Your task to perform on an android device: Show me productivity apps on the Play Store Image 0: 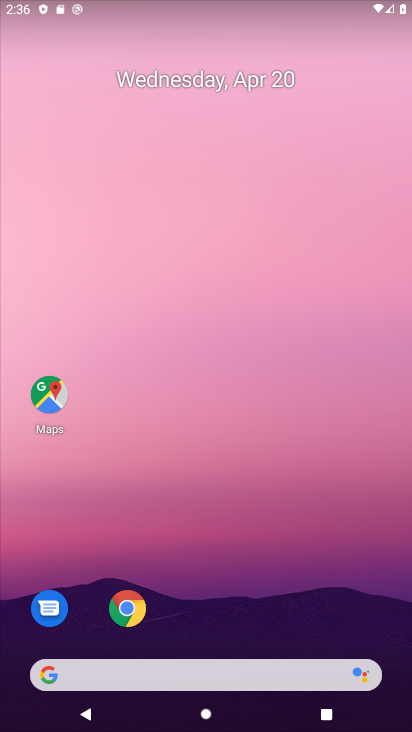
Step 0: drag from (15, 642) to (207, 287)
Your task to perform on an android device: Show me productivity apps on the Play Store Image 1: 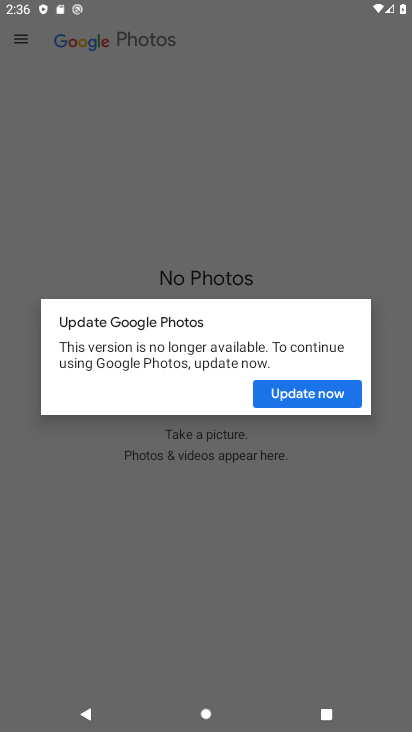
Step 1: press home button
Your task to perform on an android device: Show me productivity apps on the Play Store Image 2: 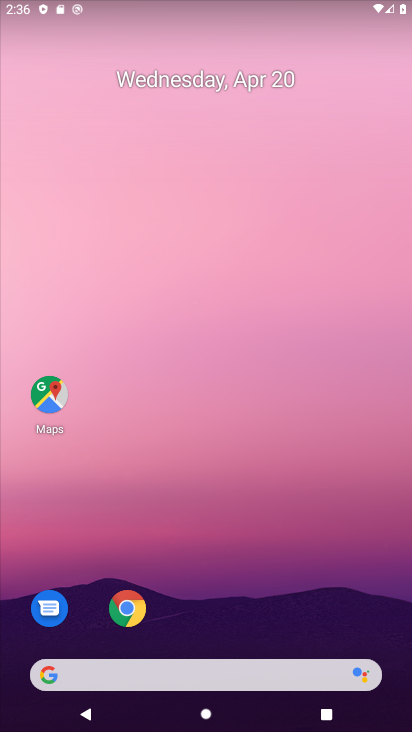
Step 2: drag from (165, 647) to (221, 120)
Your task to perform on an android device: Show me productivity apps on the Play Store Image 3: 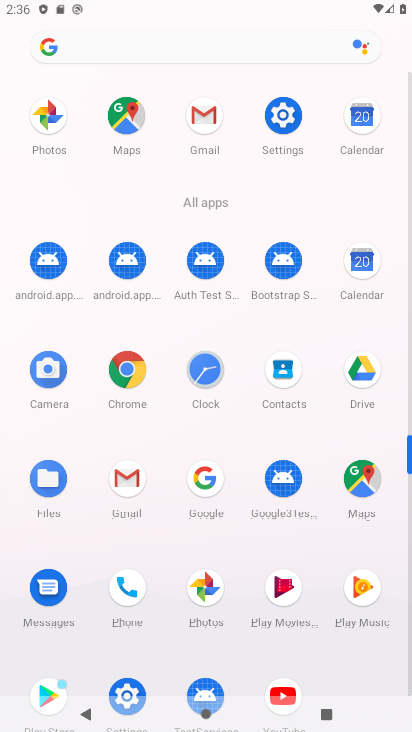
Step 3: click (51, 690)
Your task to perform on an android device: Show me productivity apps on the Play Store Image 4: 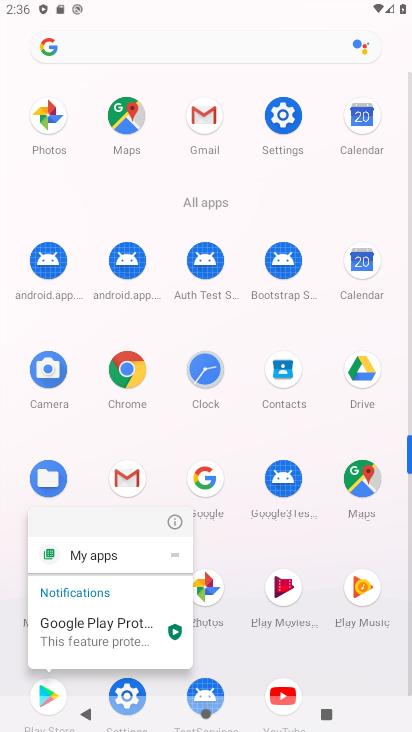
Step 4: click (293, 645)
Your task to perform on an android device: Show me productivity apps on the Play Store Image 5: 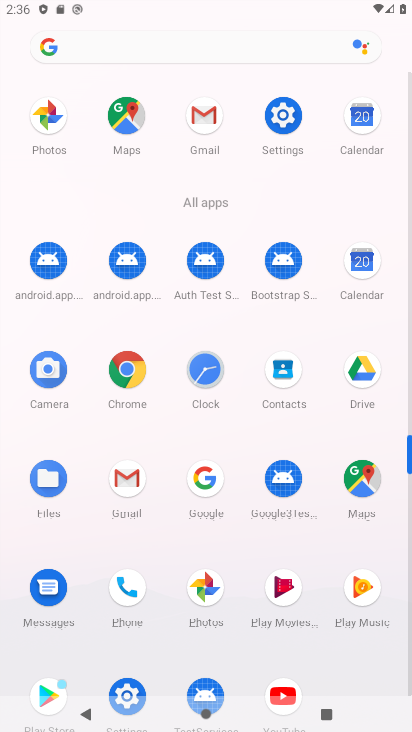
Step 5: drag from (229, 405) to (238, 263)
Your task to perform on an android device: Show me productivity apps on the Play Store Image 6: 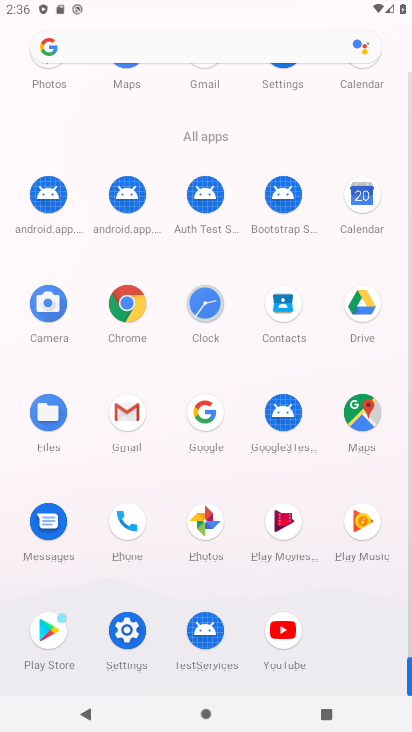
Step 6: click (49, 632)
Your task to perform on an android device: Show me productivity apps on the Play Store Image 7: 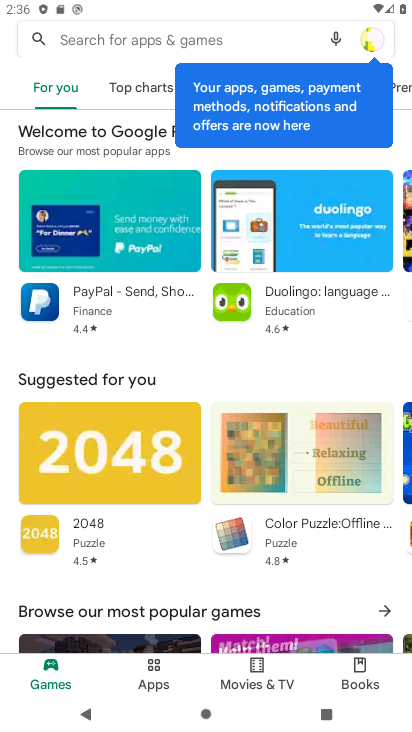
Step 7: click (160, 674)
Your task to perform on an android device: Show me productivity apps on the Play Store Image 8: 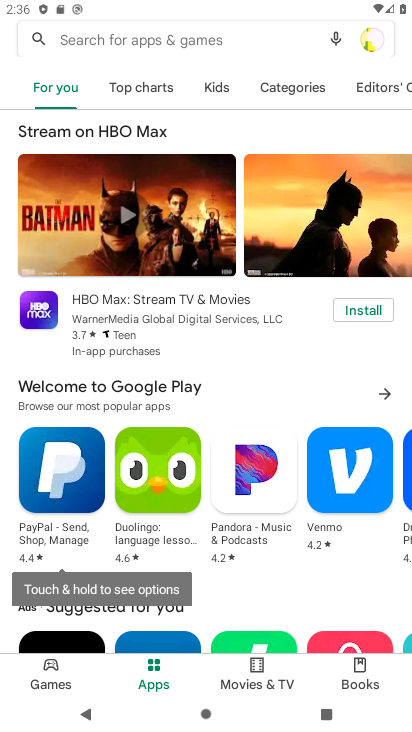
Step 8: click (299, 98)
Your task to perform on an android device: Show me productivity apps on the Play Store Image 9: 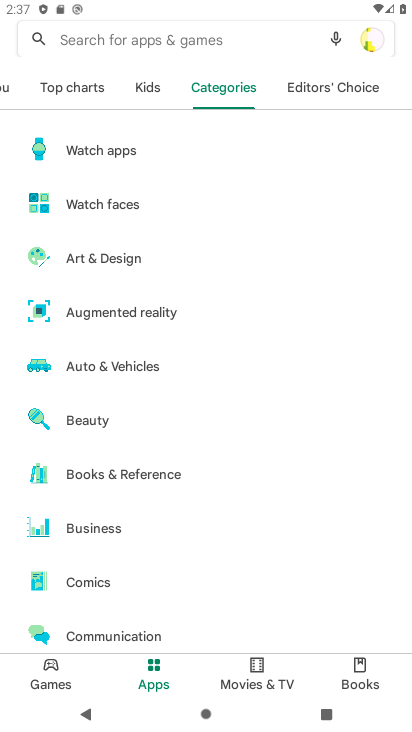
Step 9: drag from (184, 448) to (213, 229)
Your task to perform on an android device: Show me productivity apps on the Play Store Image 10: 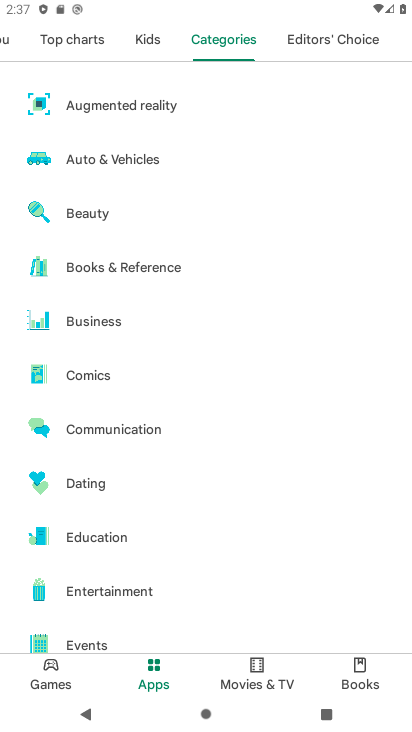
Step 10: drag from (174, 510) to (208, 312)
Your task to perform on an android device: Show me productivity apps on the Play Store Image 11: 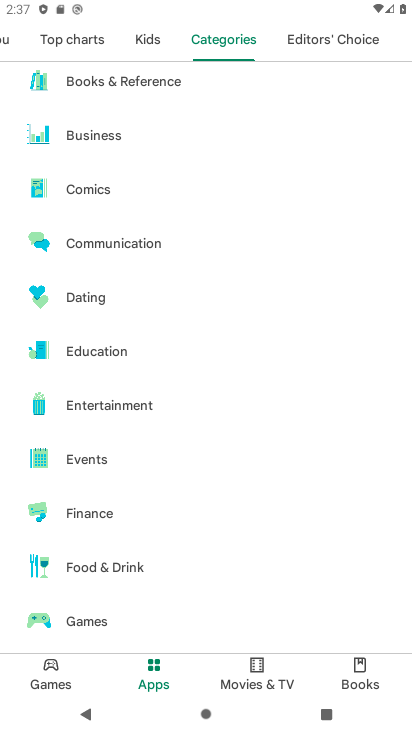
Step 11: drag from (168, 550) to (207, 327)
Your task to perform on an android device: Show me productivity apps on the Play Store Image 12: 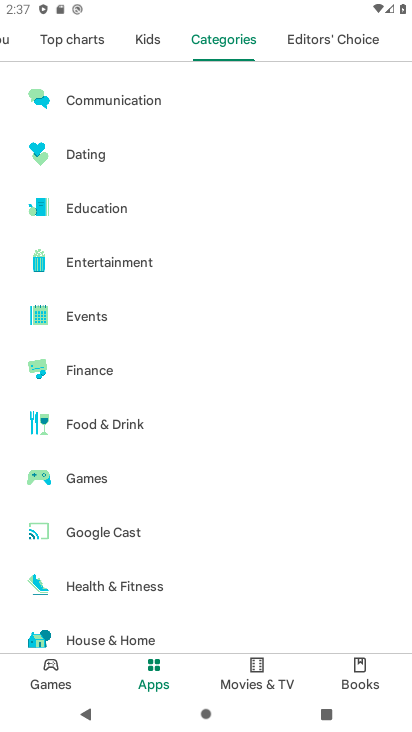
Step 12: drag from (190, 527) to (229, 340)
Your task to perform on an android device: Show me productivity apps on the Play Store Image 13: 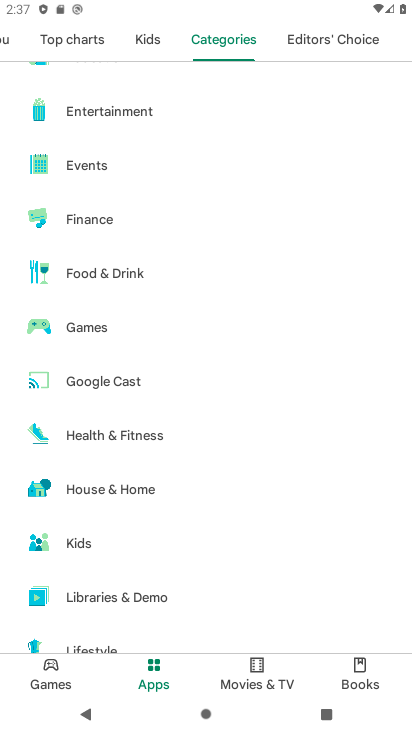
Step 13: drag from (189, 570) to (244, 370)
Your task to perform on an android device: Show me productivity apps on the Play Store Image 14: 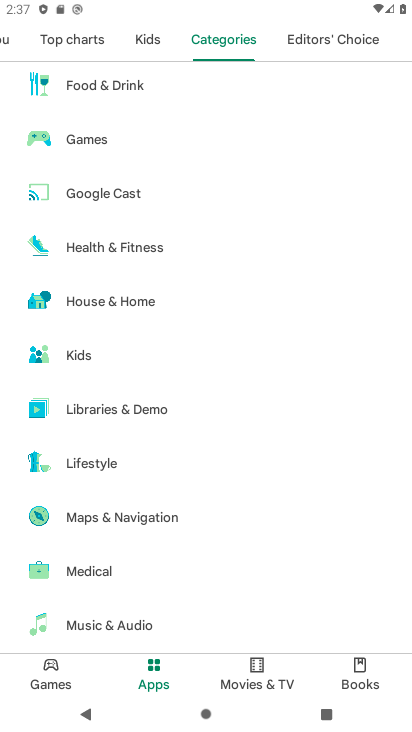
Step 14: drag from (176, 586) to (271, 238)
Your task to perform on an android device: Show me productivity apps on the Play Store Image 15: 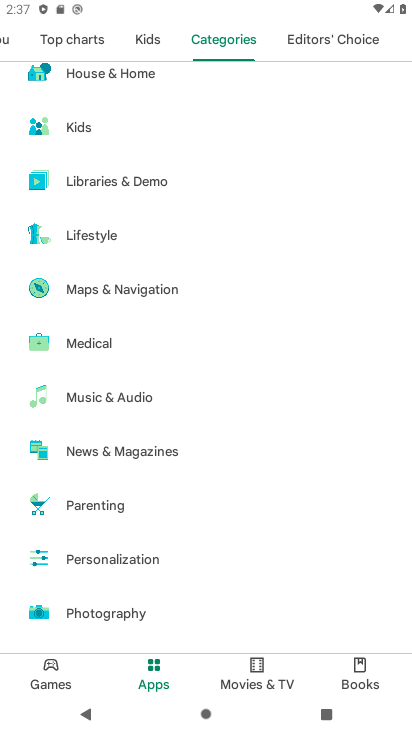
Step 15: drag from (171, 593) to (200, 389)
Your task to perform on an android device: Show me productivity apps on the Play Store Image 16: 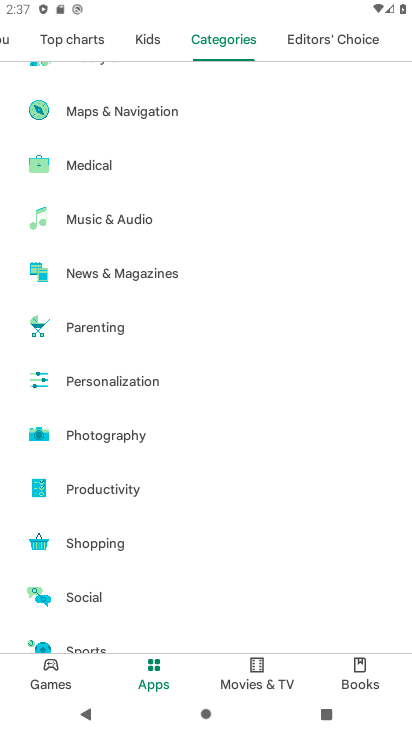
Step 16: click (77, 484)
Your task to perform on an android device: Show me productivity apps on the Play Store Image 17: 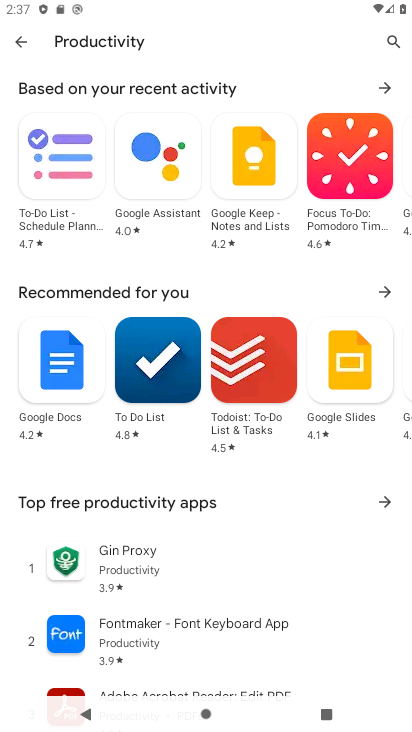
Step 17: task complete